Your task to perform on an android device: turn off smart reply in the gmail app Image 0: 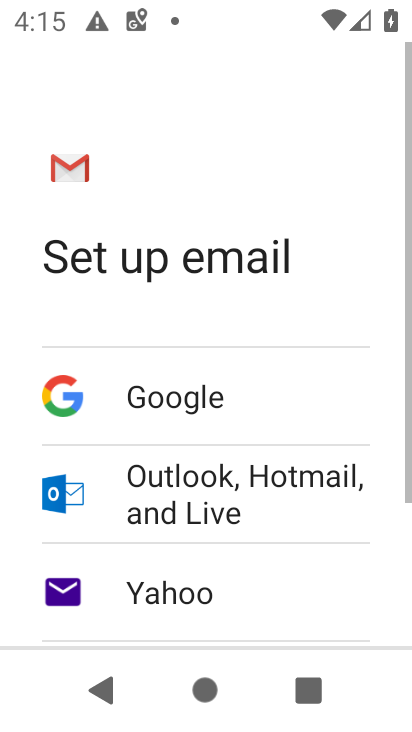
Step 0: press home button
Your task to perform on an android device: turn off smart reply in the gmail app Image 1: 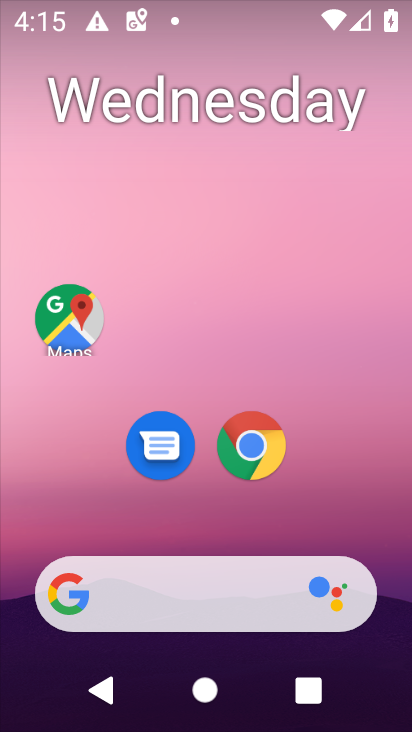
Step 1: drag from (346, 514) to (334, 3)
Your task to perform on an android device: turn off smart reply in the gmail app Image 2: 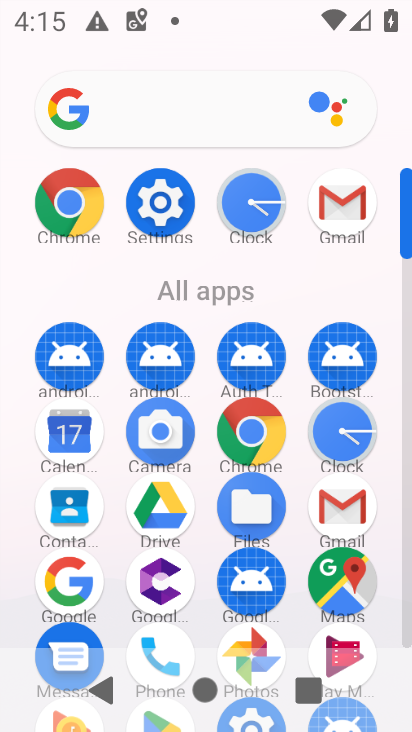
Step 2: click (352, 508)
Your task to perform on an android device: turn off smart reply in the gmail app Image 3: 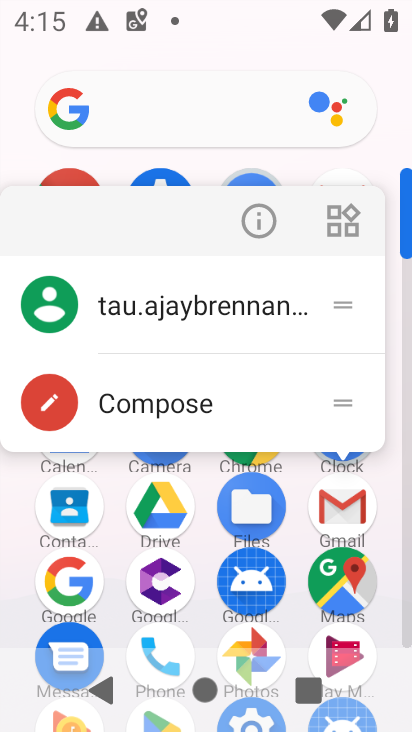
Step 3: click (352, 508)
Your task to perform on an android device: turn off smart reply in the gmail app Image 4: 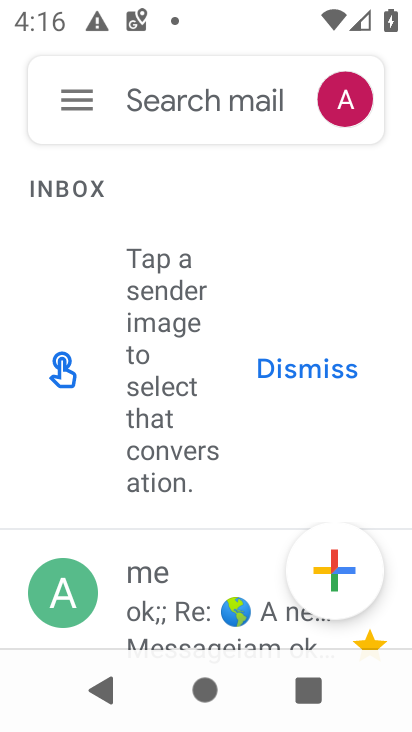
Step 4: click (67, 101)
Your task to perform on an android device: turn off smart reply in the gmail app Image 5: 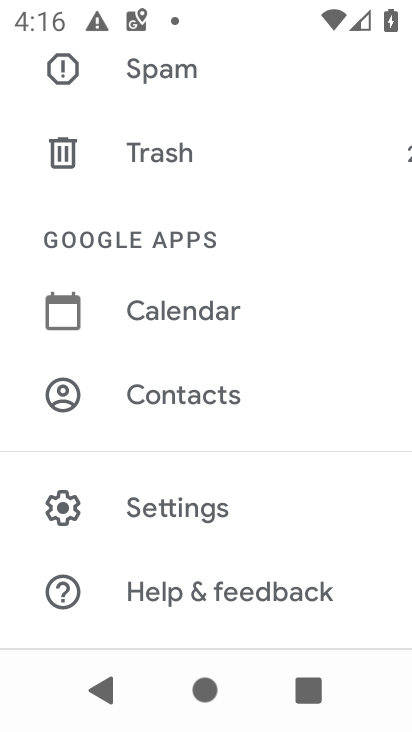
Step 5: click (190, 514)
Your task to perform on an android device: turn off smart reply in the gmail app Image 6: 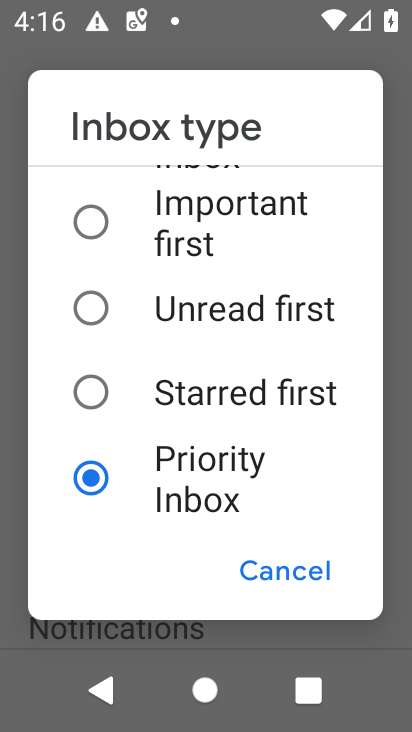
Step 6: click (305, 578)
Your task to perform on an android device: turn off smart reply in the gmail app Image 7: 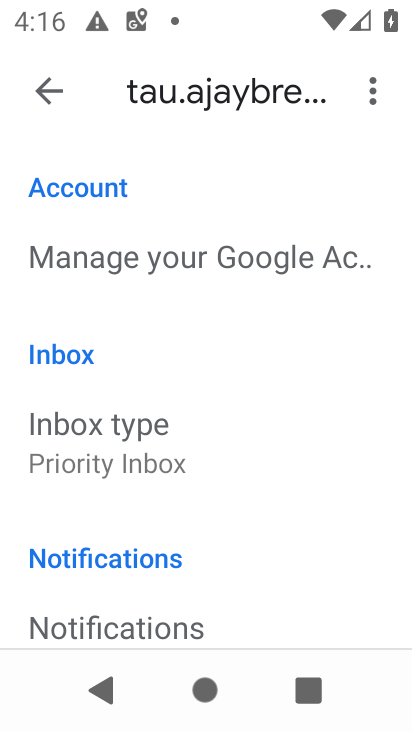
Step 7: drag from (262, 571) to (285, 49)
Your task to perform on an android device: turn off smart reply in the gmail app Image 8: 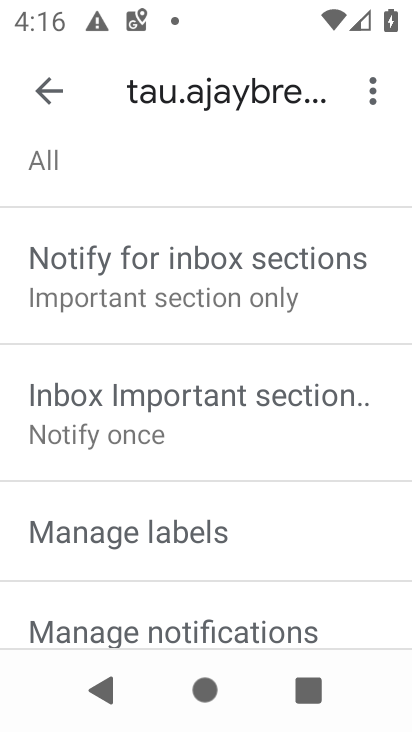
Step 8: drag from (251, 578) to (320, 135)
Your task to perform on an android device: turn off smart reply in the gmail app Image 9: 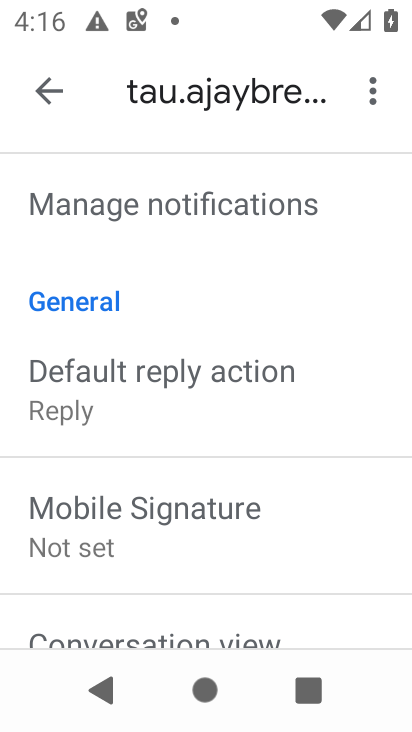
Step 9: drag from (265, 565) to (280, 238)
Your task to perform on an android device: turn off smart reply in the gmail app Image 10: 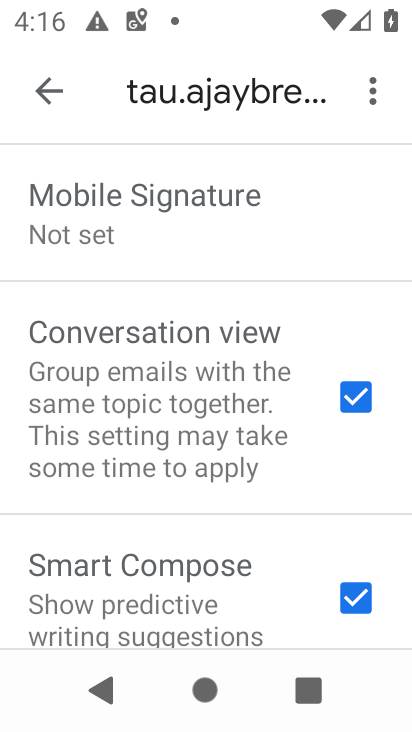
Step 10: drag from (166, 564) to (190, 164)
Your task to perform on an android device: turn off smart reply in the gmail app Image 11: 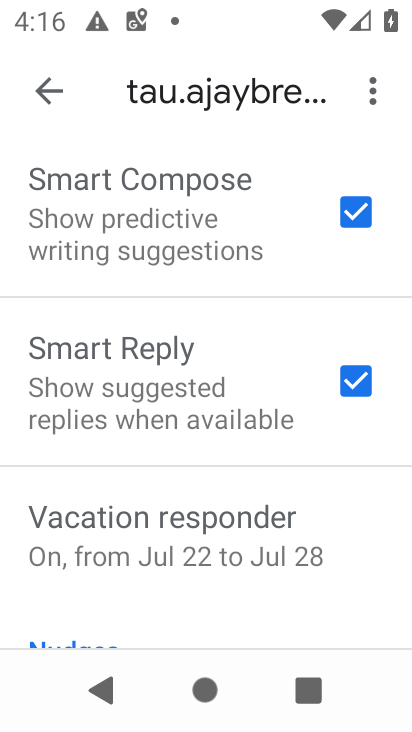
Step 11: click (358, 381)
Your task to perform on an android device: turn off smart reply in the gmail app Image 12: 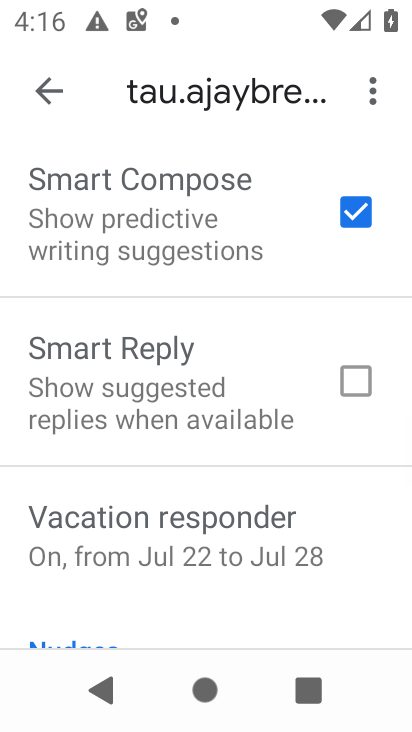
Step 12: task complete